Your task to perform on an android device: Check the news Image 0: 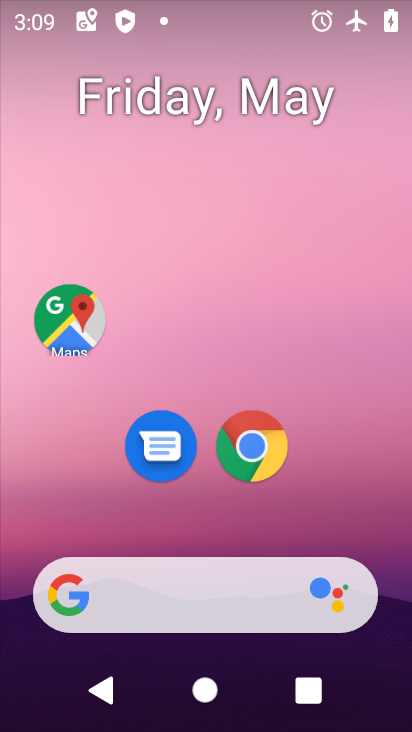
Step 0: click (229, 570)
Your task to perform on an android device: Check the news Image 1: 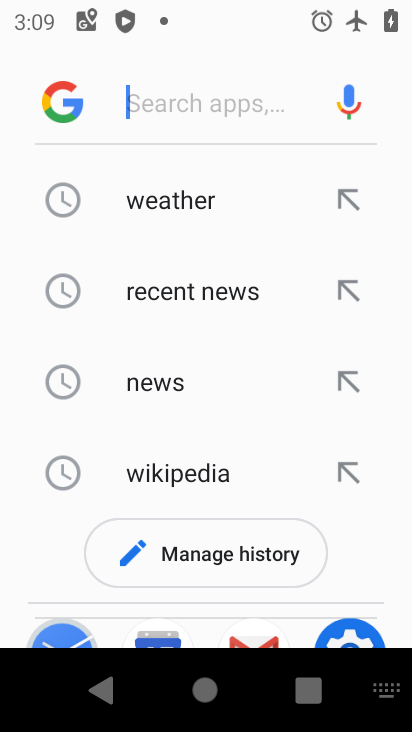
Step 1: click (211, 390)
Your task to perform on an android device: Check the news Image 2: 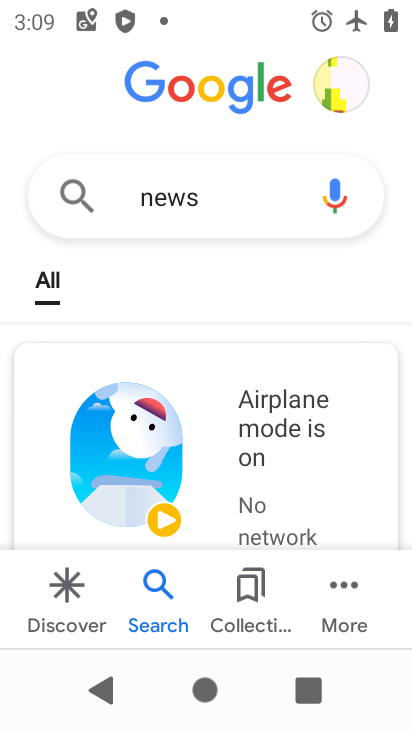
Step 2: task complete